Your task to perform on an android device: Check the weather Image 0: 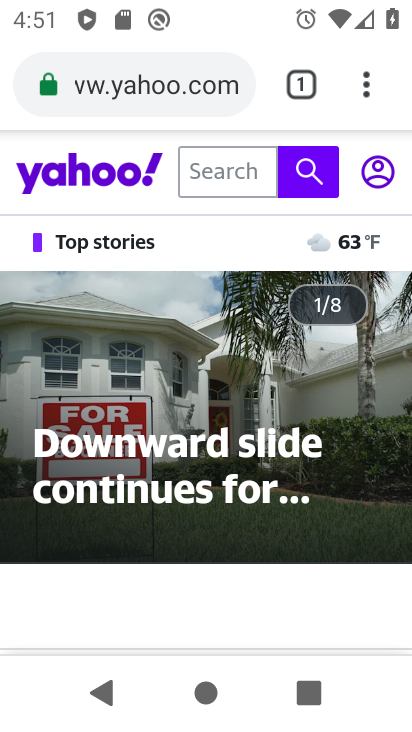
Step 0: click (125, 92)
Your task to perform on an android device: Check the weather Image 1: 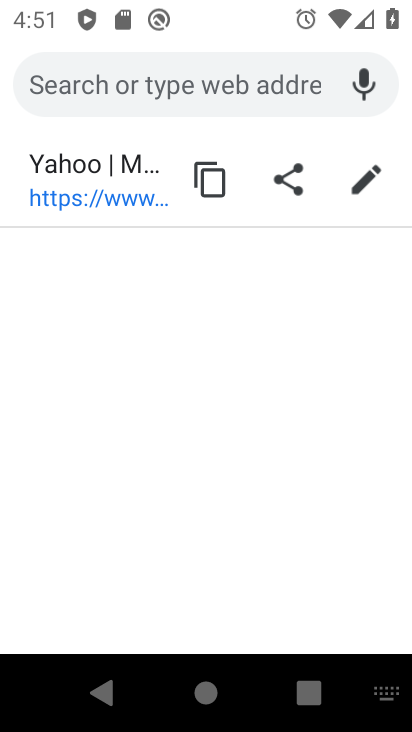
Step 1: type "weather"
Your task to perform on an android device: Check the weather Image 2: 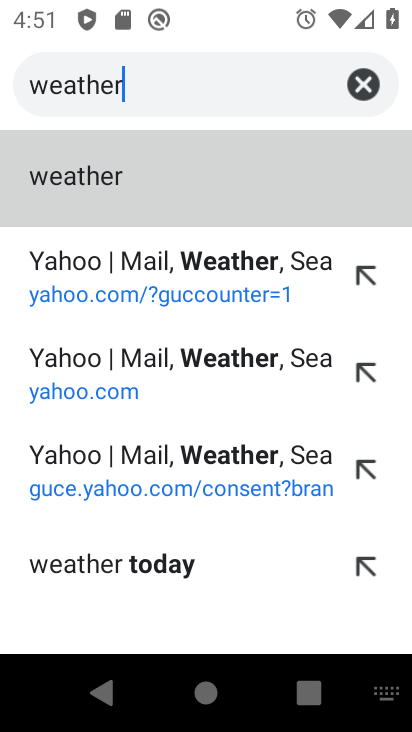
Step 2: click (78, 173)
Your task to perform on an android device: Check the weather Image 3: 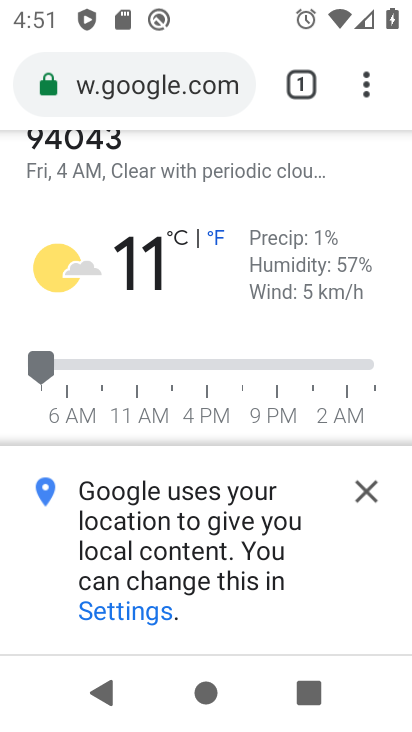
Step 3: drag from (224, 338) to (277, 214)
Your task to perform on an android device: Check the weather Image 4: 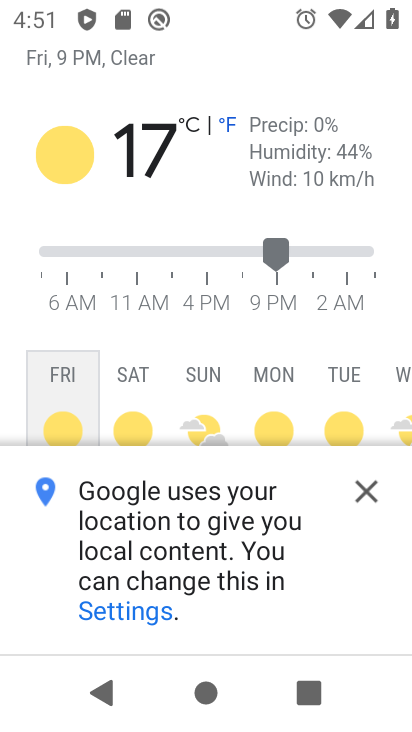
Step 4: drag from (266, 240) to (114, 245)
Your task to perform on an android device: Check the weather Image 5: 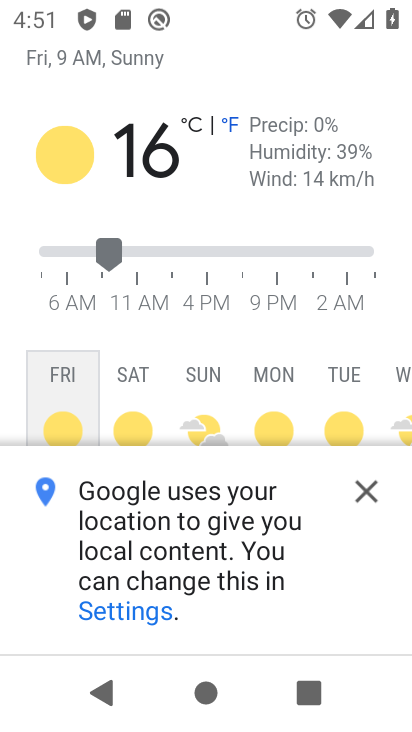
Step 5: click (371, 478)
Your task to perform on an android device: Check the weather Image 6: 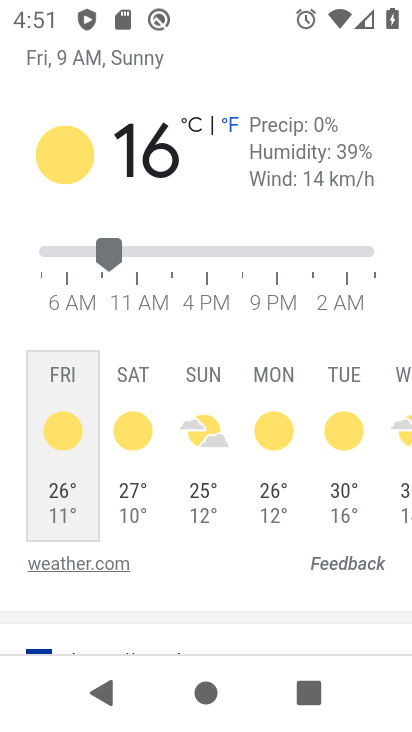
Step 6: task complete